Your task to perform on an android device: Go to eBay Image 0: 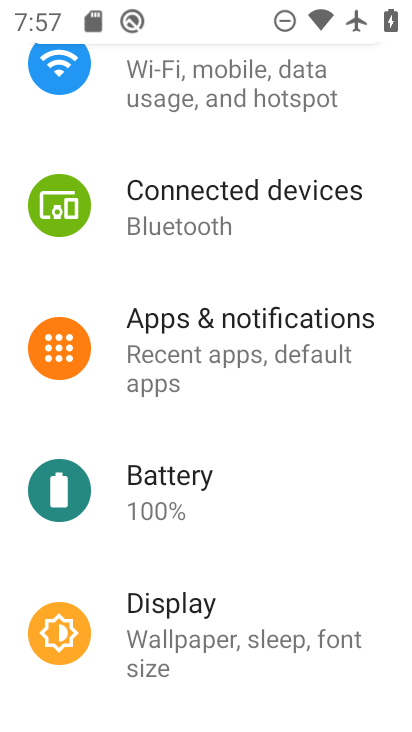
Step 0: press home button
Your task to perform on an android device: Go to eBay Image 1: 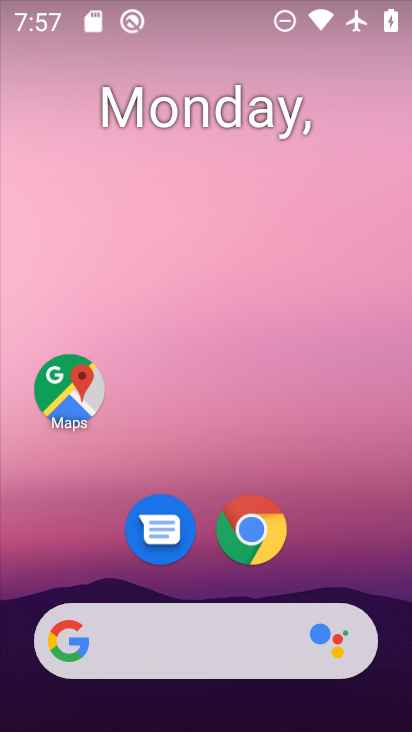
Step 1: click (249, 529)
Your task to perform on an android device: Go to eBay Image 2: 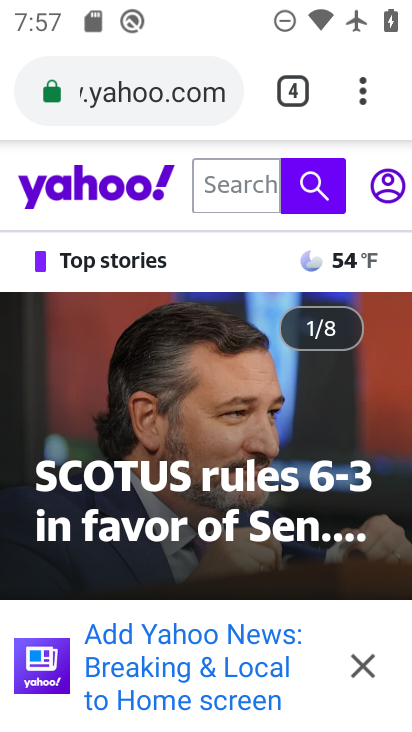
Step 2: click (362, 95)
Your task to perform on an android device: Go to eBay Image 3: 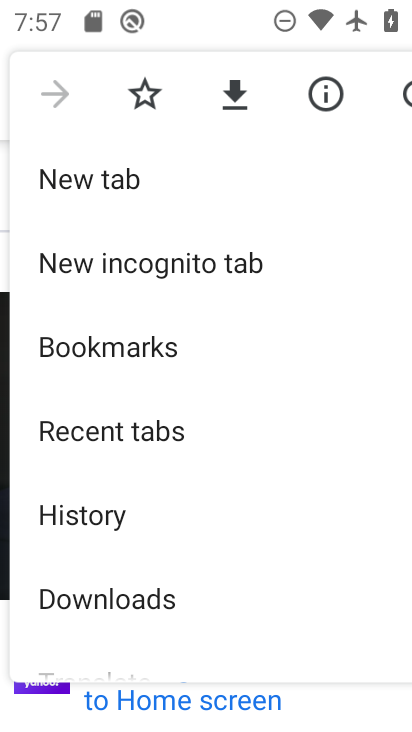
Step 3: click (99, 181)
Your task to perform on an android device: Go to eBay Image 4: 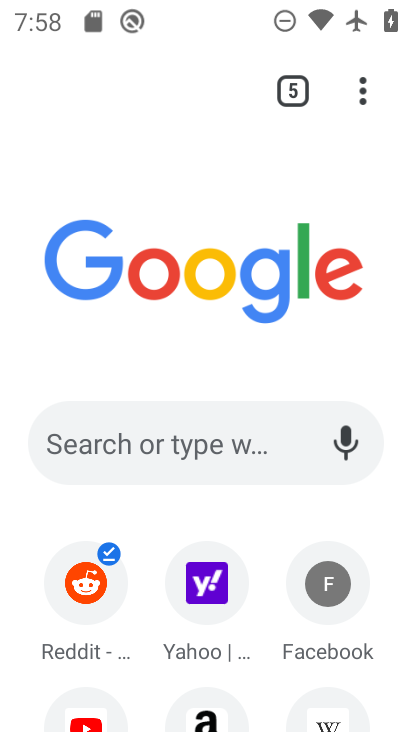
Step 4: drag from (144, 650) to (138, 486)
Your task to perform on an android device: Go to eBay Image 5: 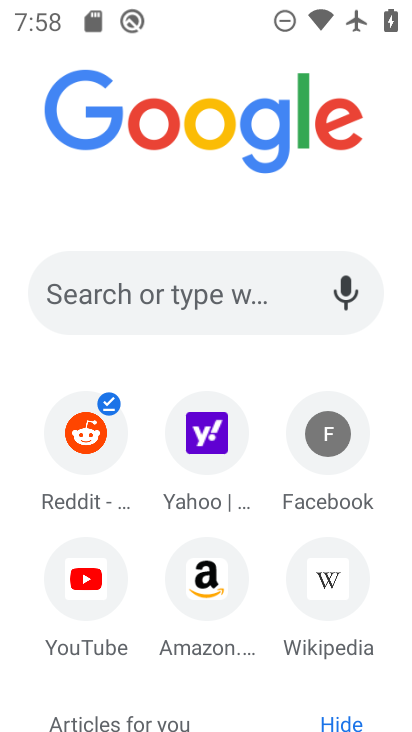
Step 5: click (173, 314)
Your task to perform on an android device: Go to eBay Image 6: 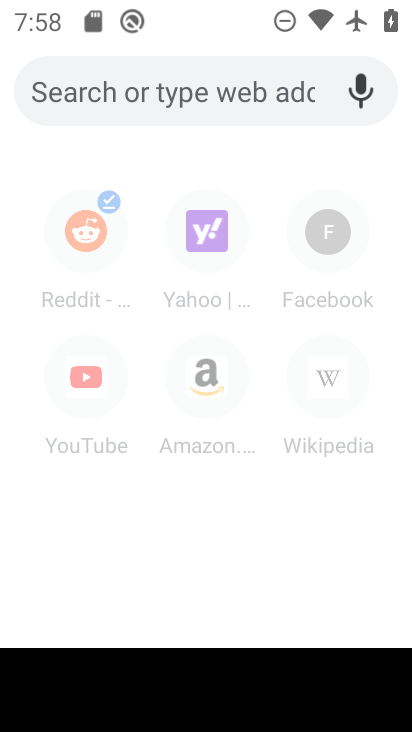
Step 6: type "ebay"
Your task to perform on an android device: Go to eBay Image 7: 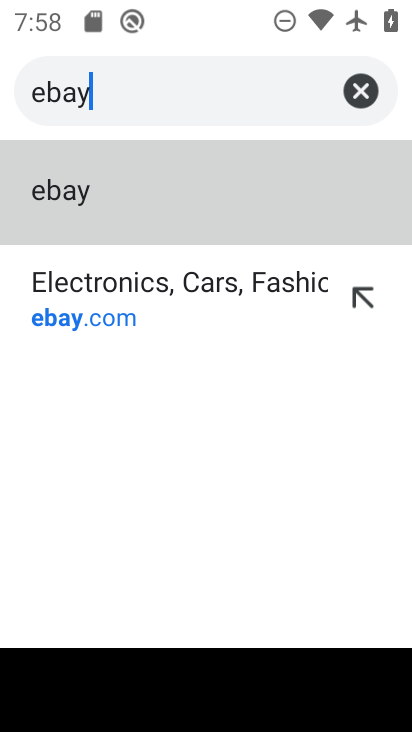
Step 7: click (69, 206)
Your task to perform on an android device: Go to eBay Image 8: 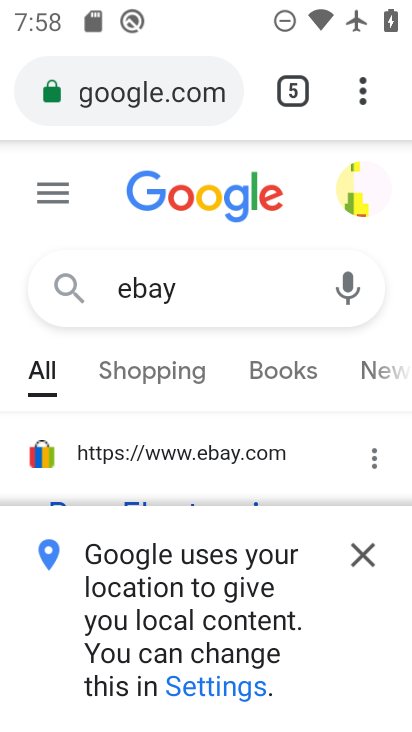
Step 8: task complete